Your task to perform on an android device: turn off wifi Image 0: 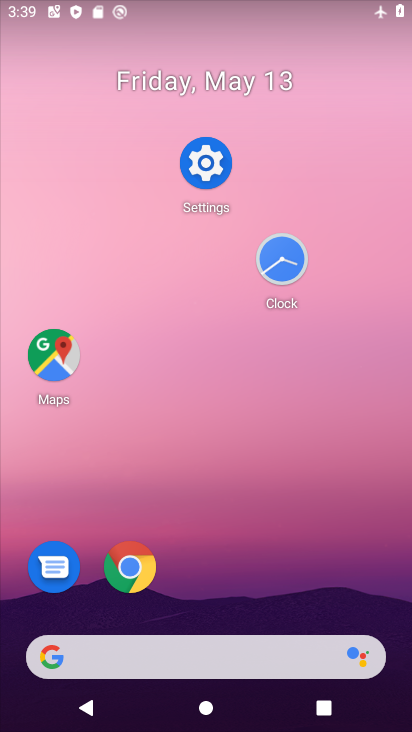
Step 0: click (204, 194)
Your task to perform on an android device: turn off wifi Image 1: 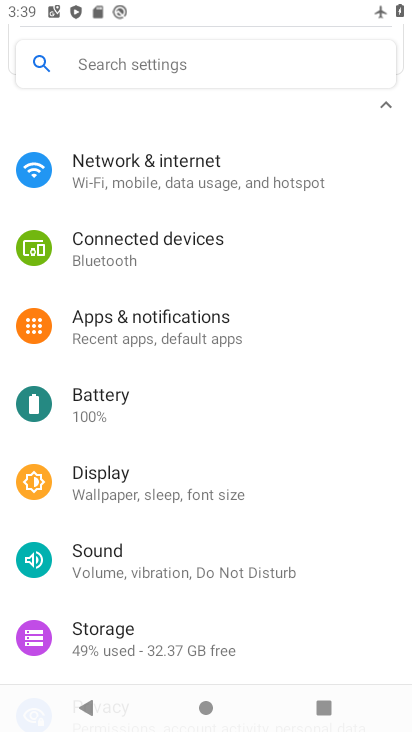
Step 1: click (204, 186)
Your task to perform on an android device: turn off wifi Image 2: 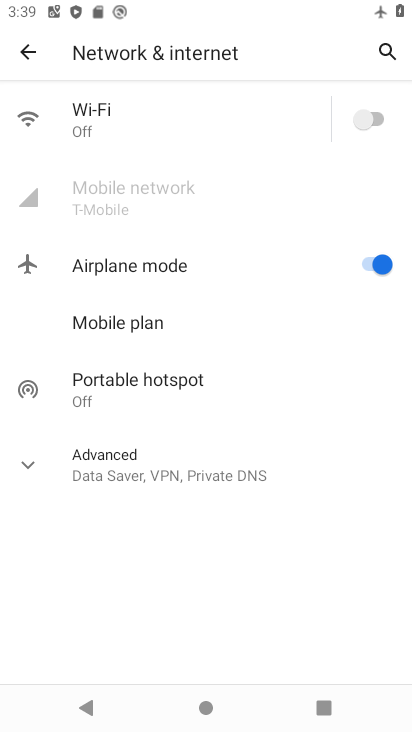
Step 2: click (358, 111)
Your task to perform on an android device: turn off wifi Image 3: 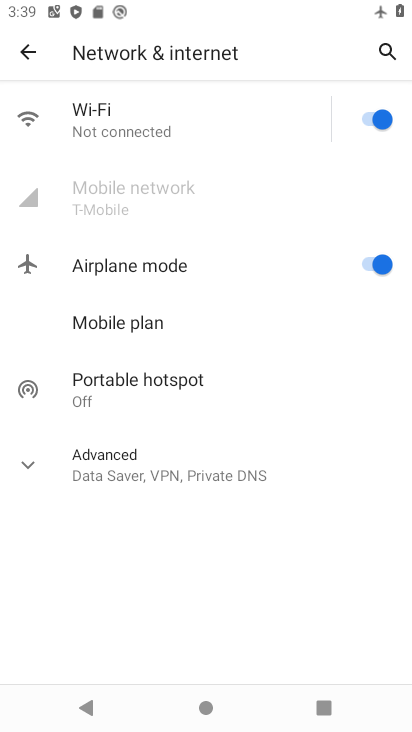
Step 3: task complete